Your task to perform on an android device: Go to calendar. Show me events next week Image 0: 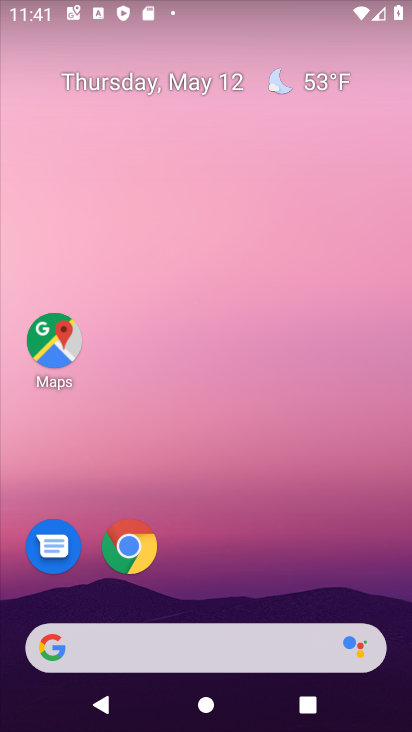
Step 0: drag from (262, 673) to (244, 257)
Your task to perform on an android device: Go to calendar. Show me events next week Image 1: 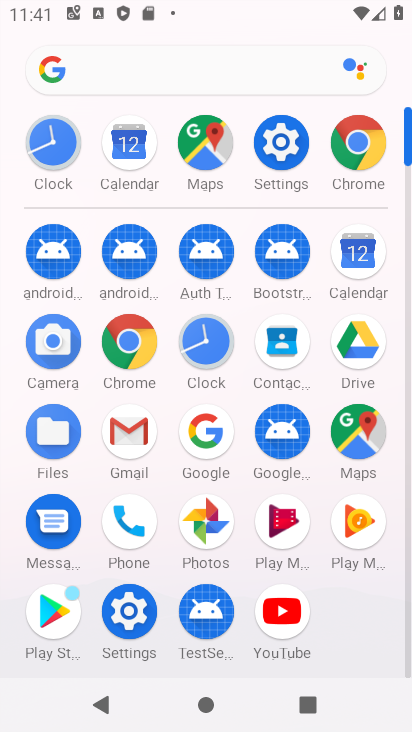
Step 1: click (356, 251)
Your task to perform on an android device: Go to calendar. Show me events next week Image 2: 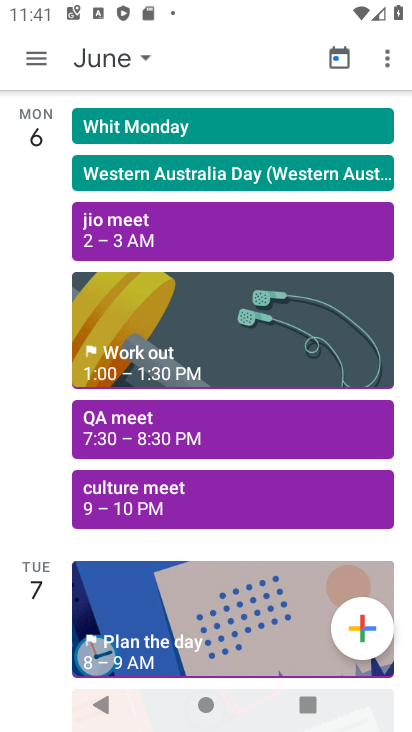
Step 2: click (27, 58)
Your task to perform on an android device: Go to calendar. Show me events next week Image 3: 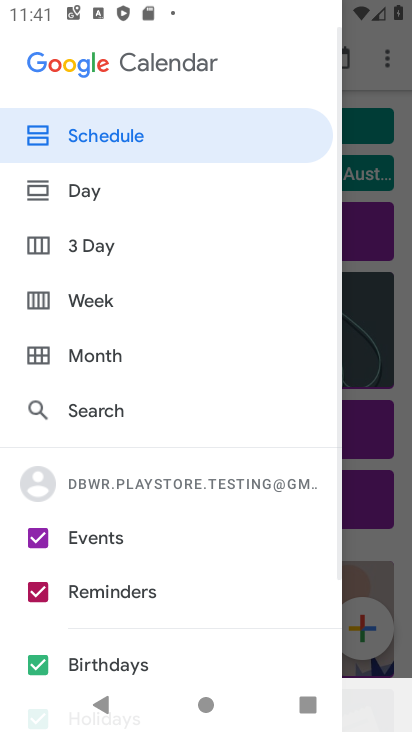
Step 3: click (93, 357)
Your task to perform on an android device: Go to calendar. Show me events next week Image 4: 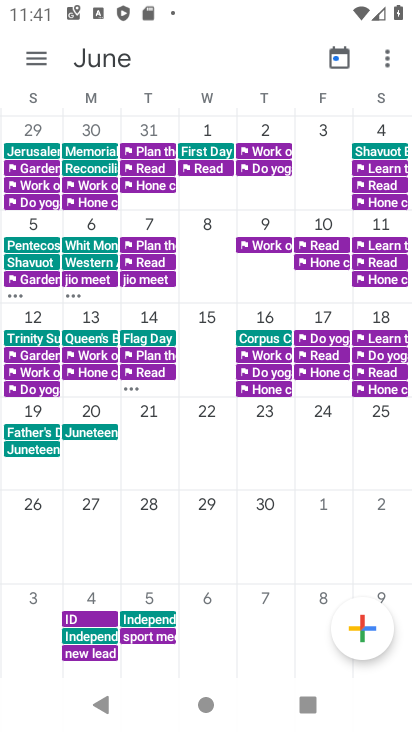
Step 4: drag from (22, 385) to (98, 297)
Your task to perform on an android device: Go to calendar. Show me events next week Image 5: 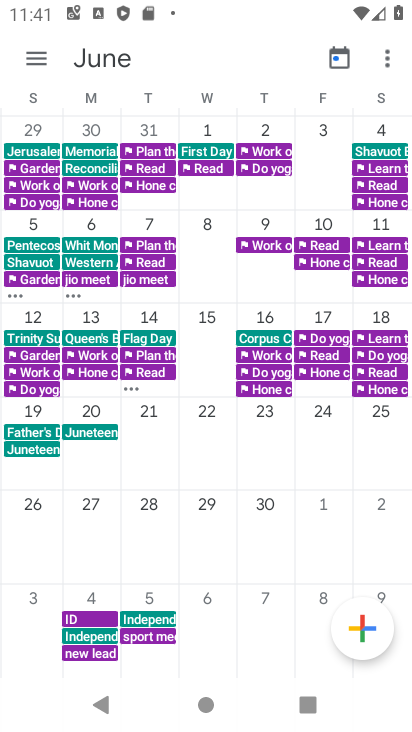
Step 5: drag from (83, 422) to (389, 309)
Your task to perform on an android device: Go to calendar. Show me events next week Image 6: 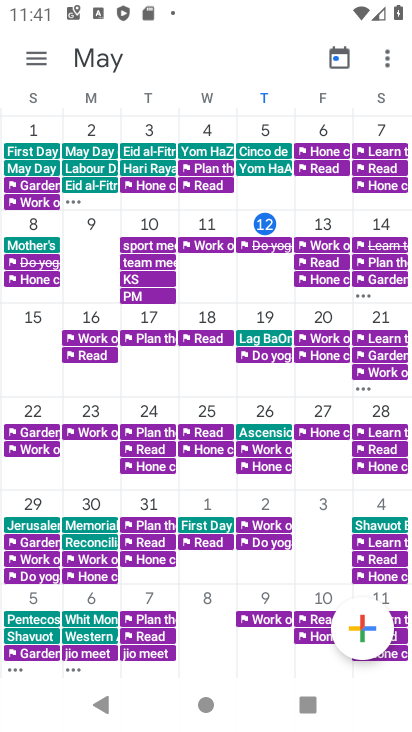
Step 6: click (84, 335)
Your task to perform on an android device: Go to calendar. Show me events next week Image 7: 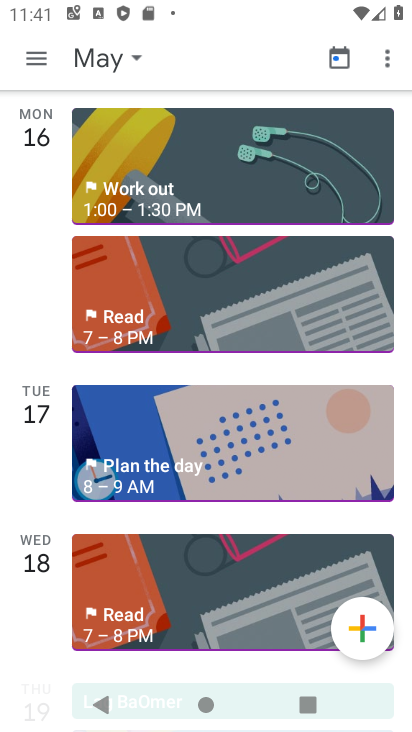
Step 7: task complete